Your task to perform on an android device: check data usage Image 0: 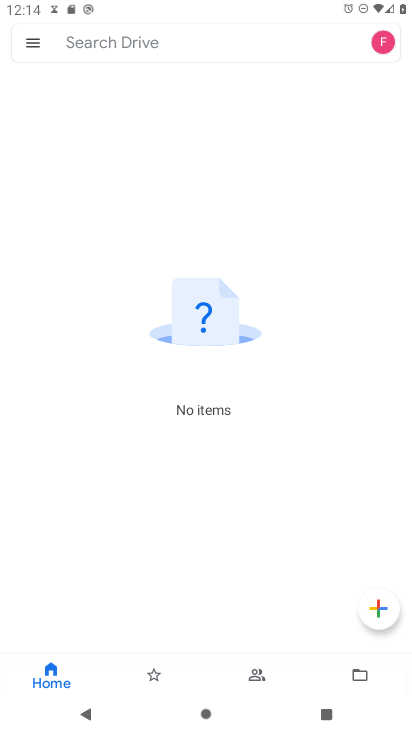
Step 0: press home button
Your task to perform on an android device: check data usage Image 1: 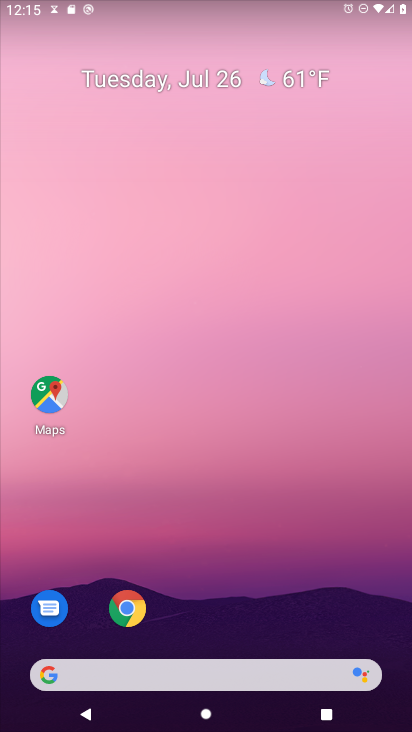
Step 1: drag from (171, 671) to (222, 63)
Your task to perform on an android device: check data usage Image 2: 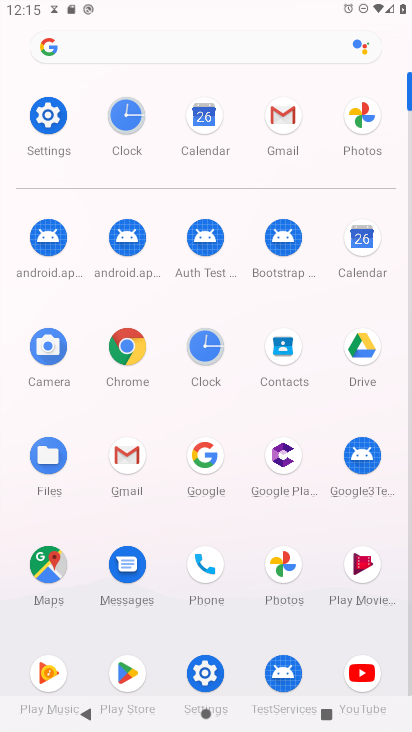
Step 2: click (47, 114)
Your task to perform on an android device: check data usage Image 3: 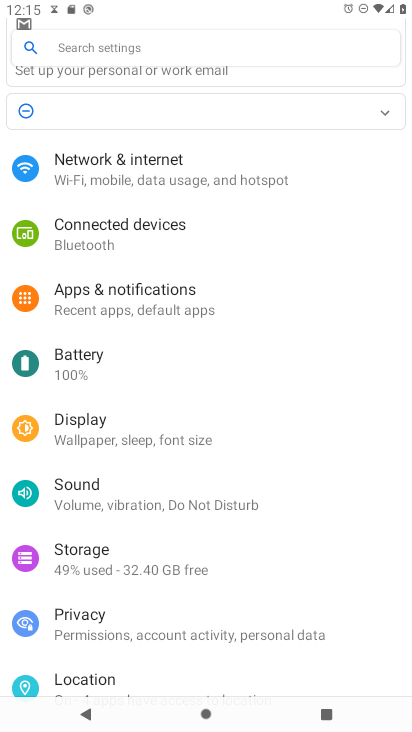
Step 3: click (112, 180)
Your task to perform on an android device: check data usage Image 4: 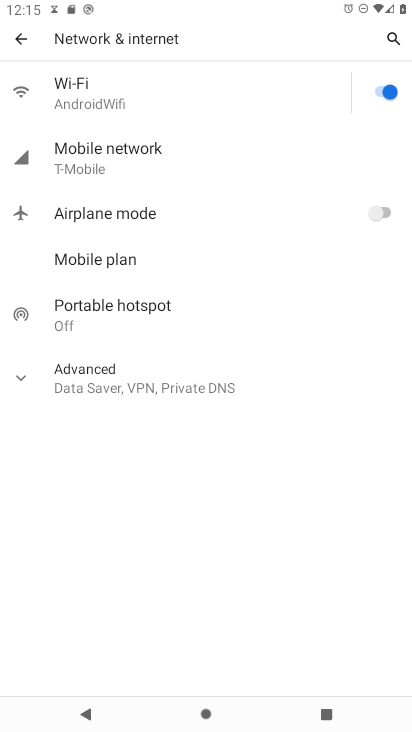
Step 4: click (122, 154)
Your task to perform on an android device: check data usage Image 5: 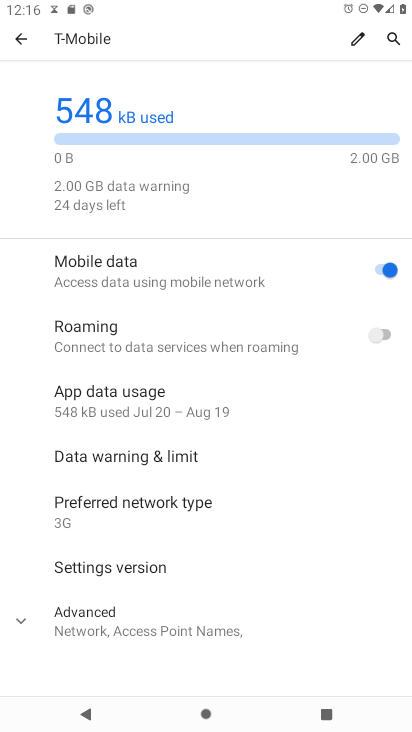
Step 5: task complete